Your task to perform on an android device: turn off translation in the chrome app Image 0: 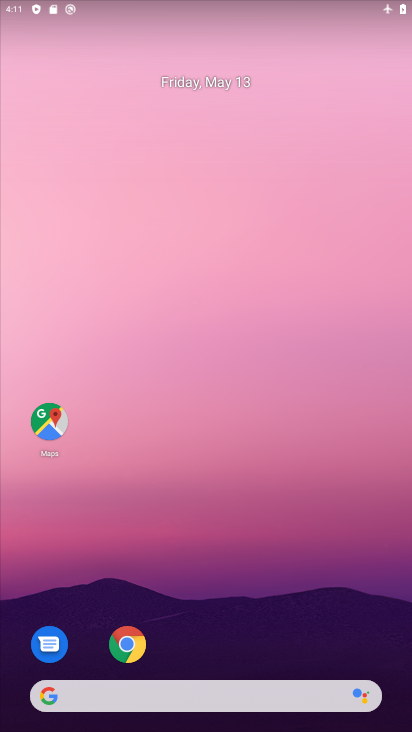
Step 0: click (128, 647)
Your task to perform on an android device: turn off translation in the chrome app Image 1: 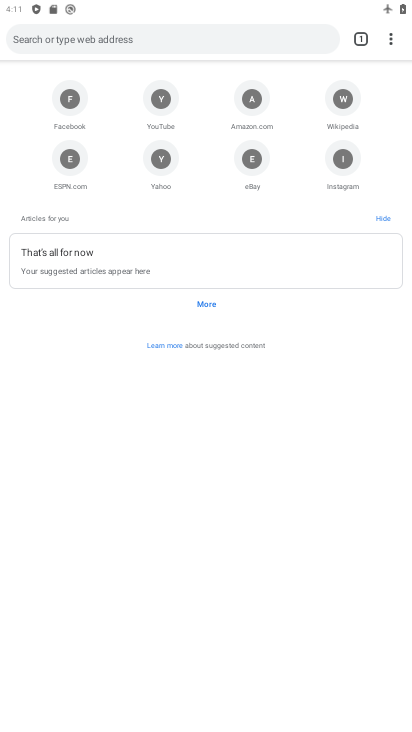
Step 1: drag from (397, 40) to (239, 327)
Your task to perform on an android device: turn off translation in the chrome app Image 2: 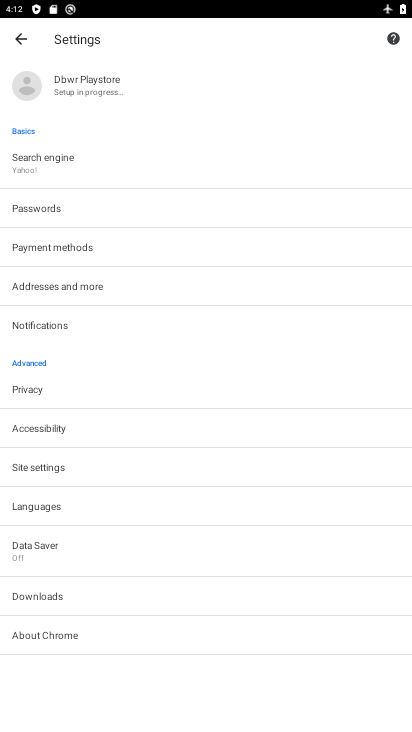
Step 2: click (41, 498)
Your task to perform on an android device: turn off translation in the chrome app Image 3: 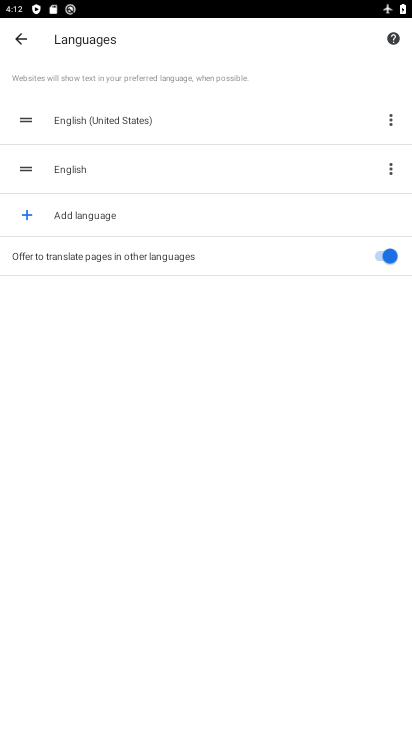
Step 3: click (385, 261)
Your task to perform on an android device: turn off translation in the chrome app Image 4: 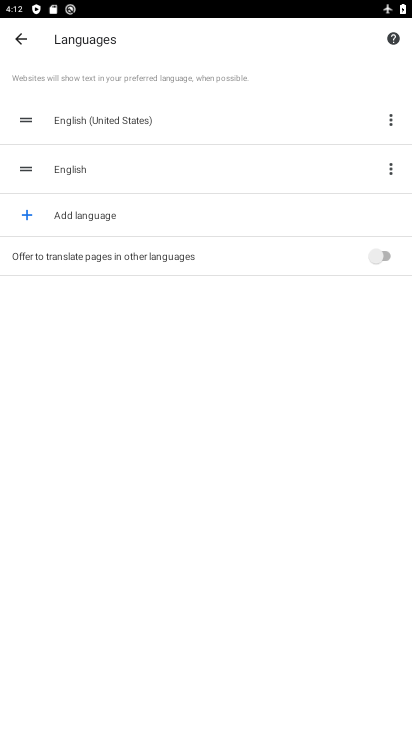
Step 4: task complete